Your task to perform on an android device: change the clock display to show seconds Image 0: 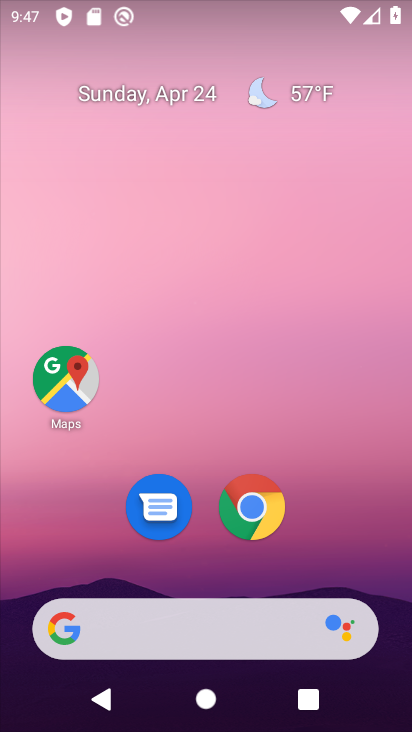
Step 0: drag from (157, 603) to (274, 27)
Your task to perform on an android device: change the clock display to show seconds Image 1: 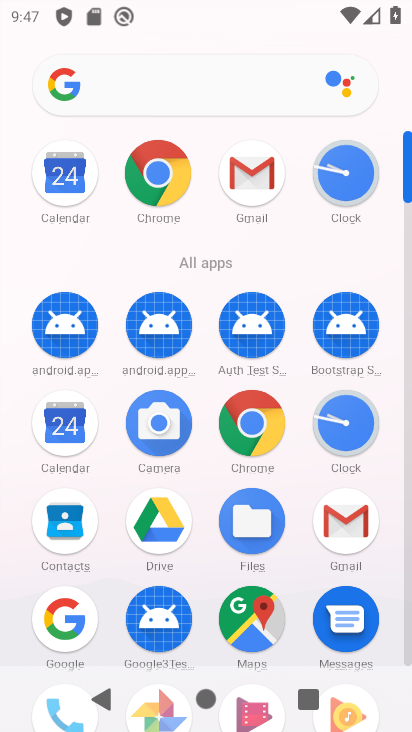
Step 1: click (334, 427)
Your task to perform on an android device: change the clock display to show seconds Image 2: 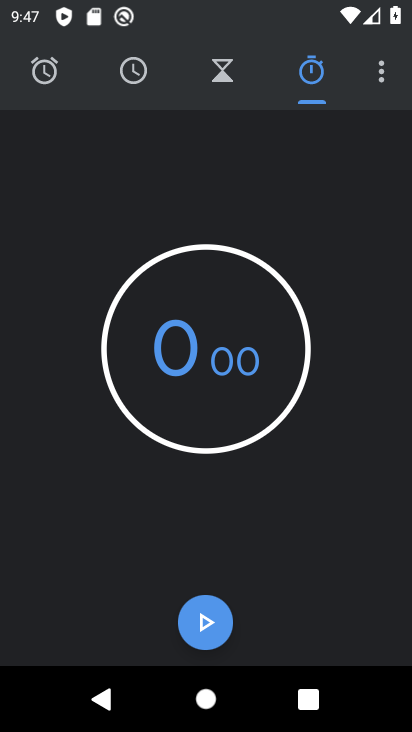
Step 2: click (380, 86)
Your task to perform on an android device: change the clock display to show seconds Image 3: 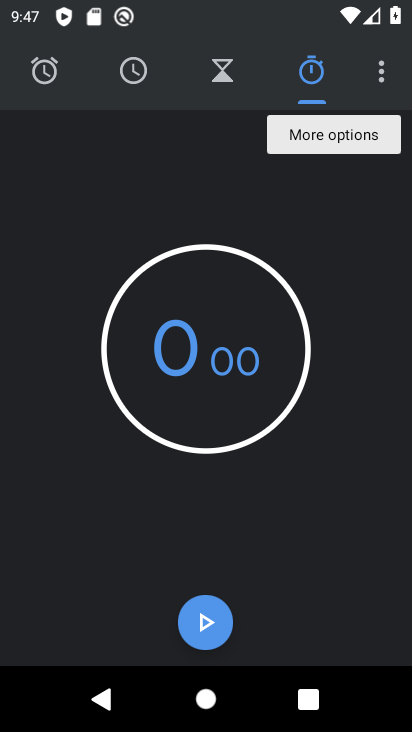
Step 3: click (381, 58)
Your task to perform on an android device: change the clock display to show seconds Image 4: 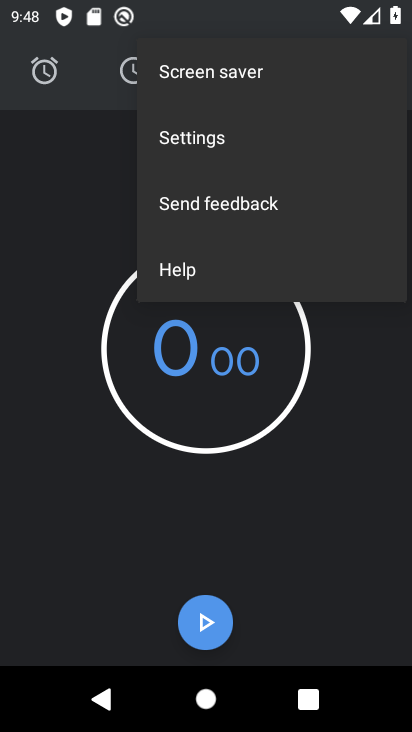
Step 4: click (258, 149)
Your task to perform on an android device: change the clock display to show seconds Image 5: 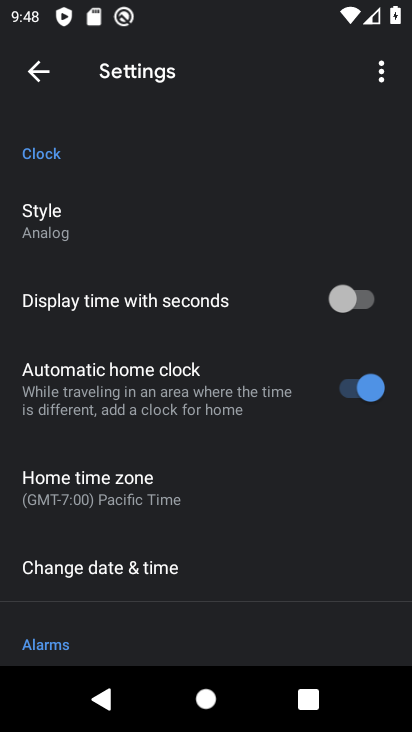
Step 5: click (365, 292)
Your task to perform on an android device: change the clock display to show seconds Image 6: 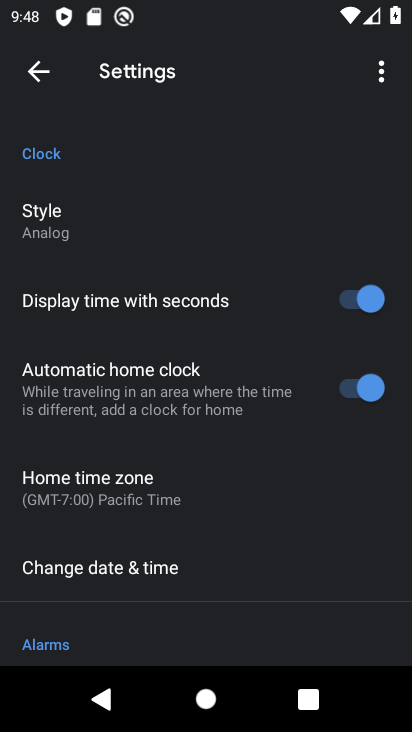
Step 6: task complete